Your task to perform on an android device: check the backup settings in the google photos Image 0: 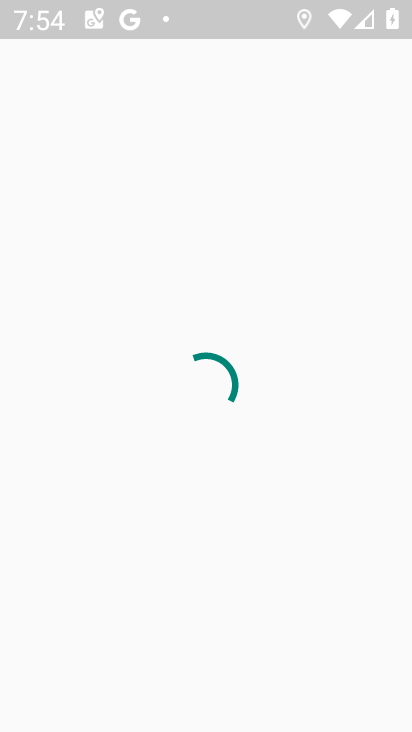
Step 0: press home button
Your task to perform on an android device: check the backup settings in the google photos Image 1: 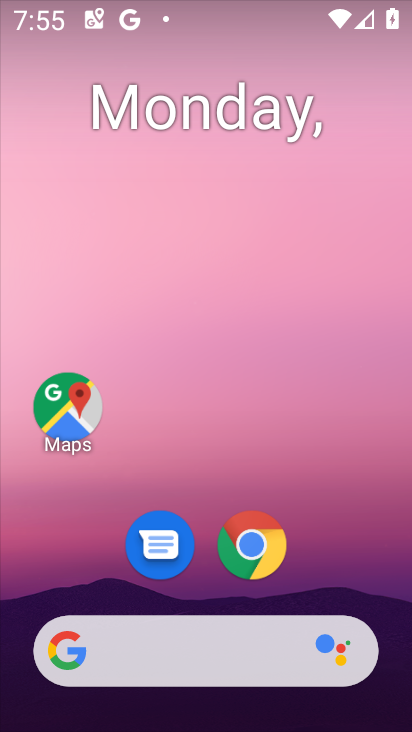
Step 1: drag from (157, 647) to (319, 151)
Your task to perform on an android device: check the backup settings in the google photos Image 2: 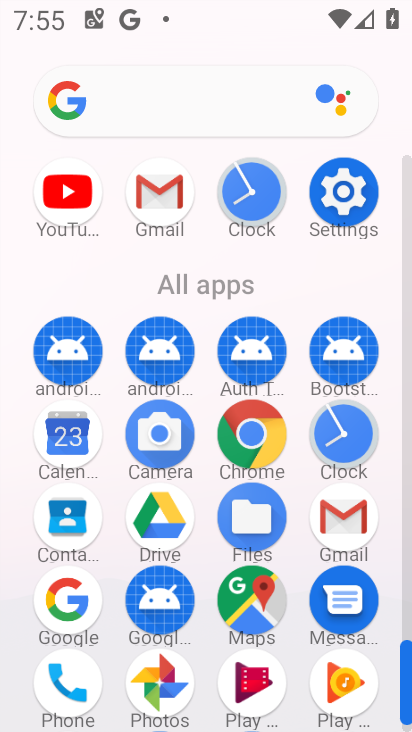
Step 2: drag from (113, 604) to (254, 238)
Your task to perform on an android device: check the backup settings in the google photos Image 3: 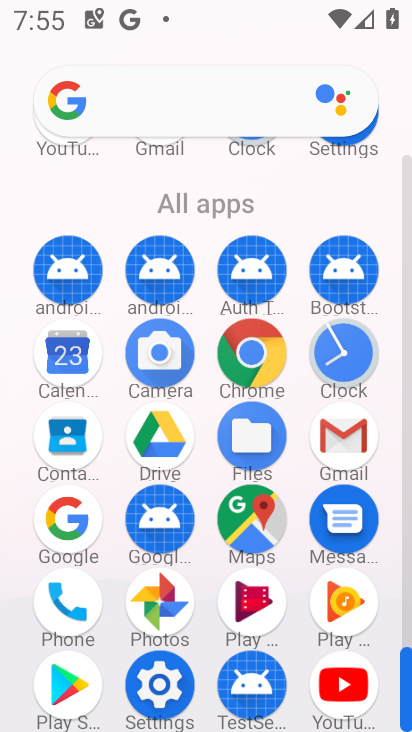
Step 3: click (154, 606)
Your task to perform on an android device: check the backup settings in the google photos Image 4: 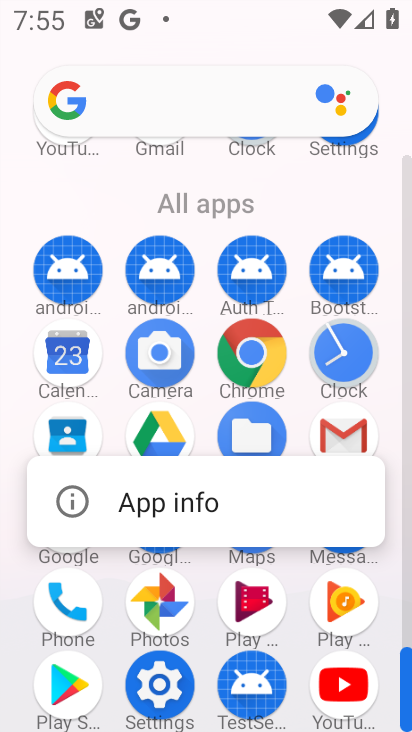
Step 4: click (161, 602)
Your task to perform on an android device: check the backup settings in the google photos Image 5: 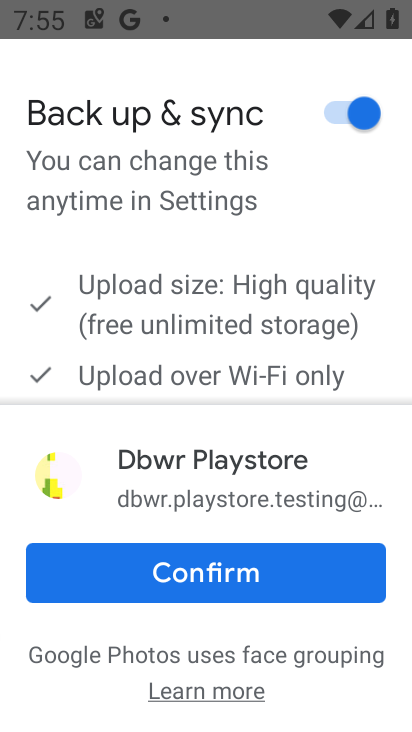
Step 5: click (183, 571)
Your task to perform on an android device: check the backup settings in the google photos Image 6: 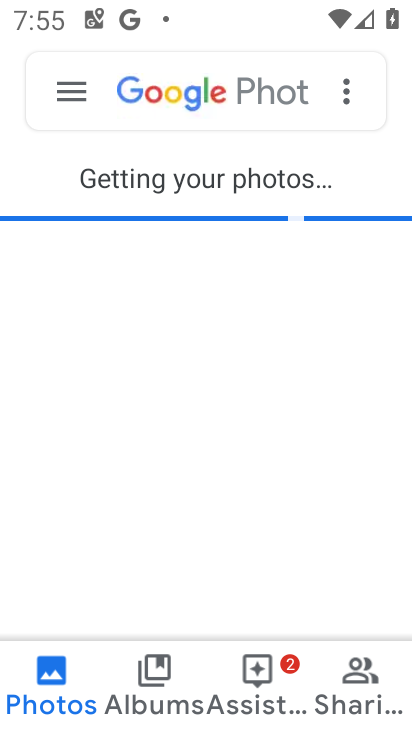
Step 6: click (66, 86)
Your task to perform on an android device: check the backup settings in the google photos Image 7: 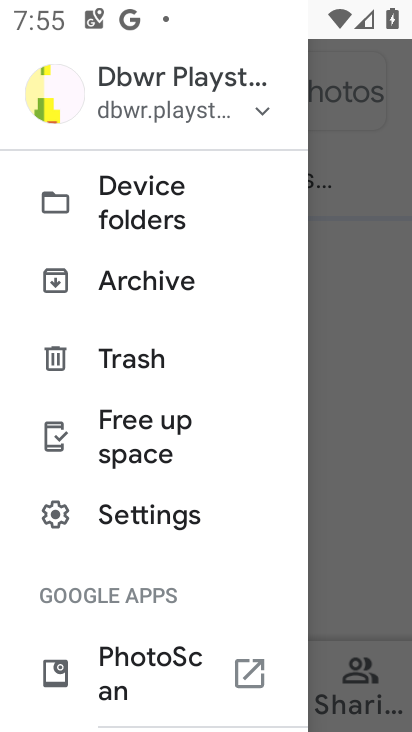
Step 7: click (149, 515)
Your task to perform on an android device: check the backup settings in the google photos Image 8: 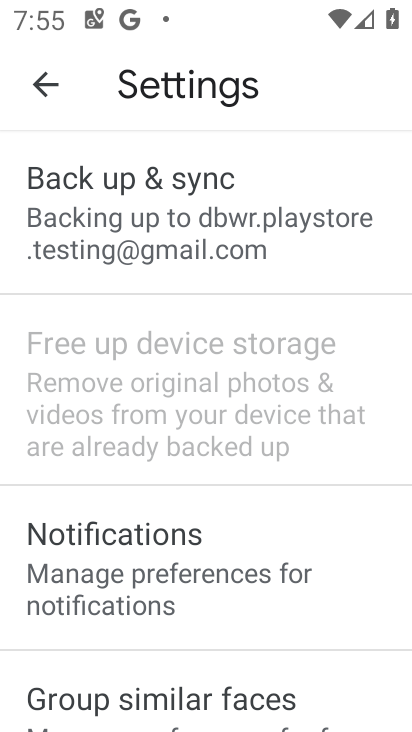
Step 8: click (193, 234)
Your task to perform on an android device: check the backup settings in the google photos Image 9: 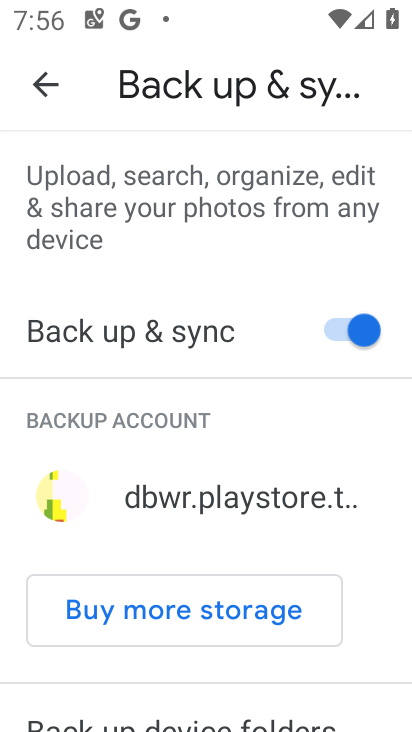
Step 9: task complete